Your task to perform on an android device: open app "Viber Messenger" (install if not already installed), go to login, and select forgot password Image 0: 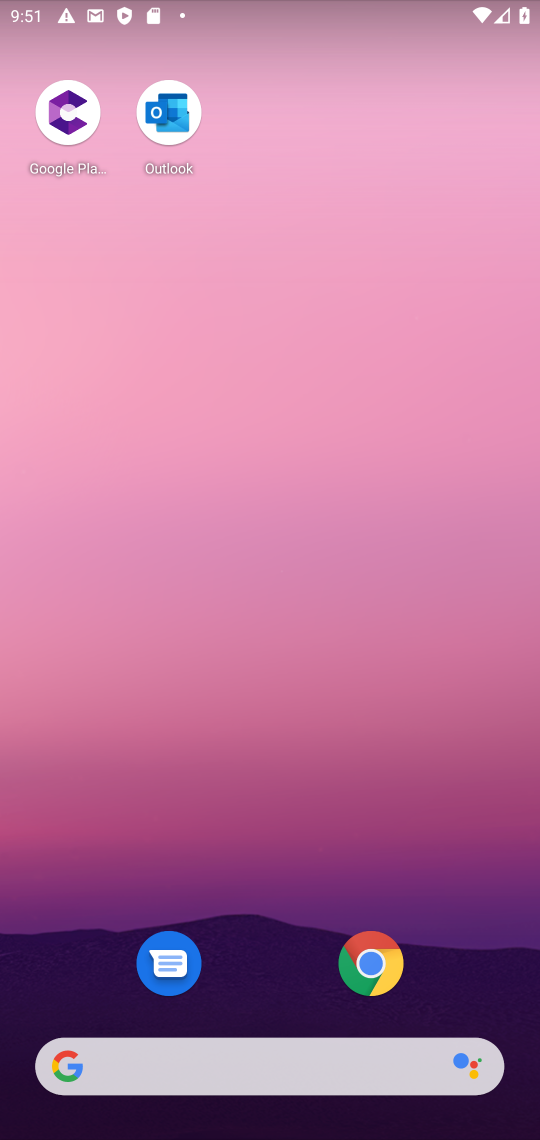
Step 0: drag from (252, 824) to (257, 141)
Your task to perform on an android device: open app "Viber Messenger" (install if not already installed), go to login, and select forgot password Image 1: 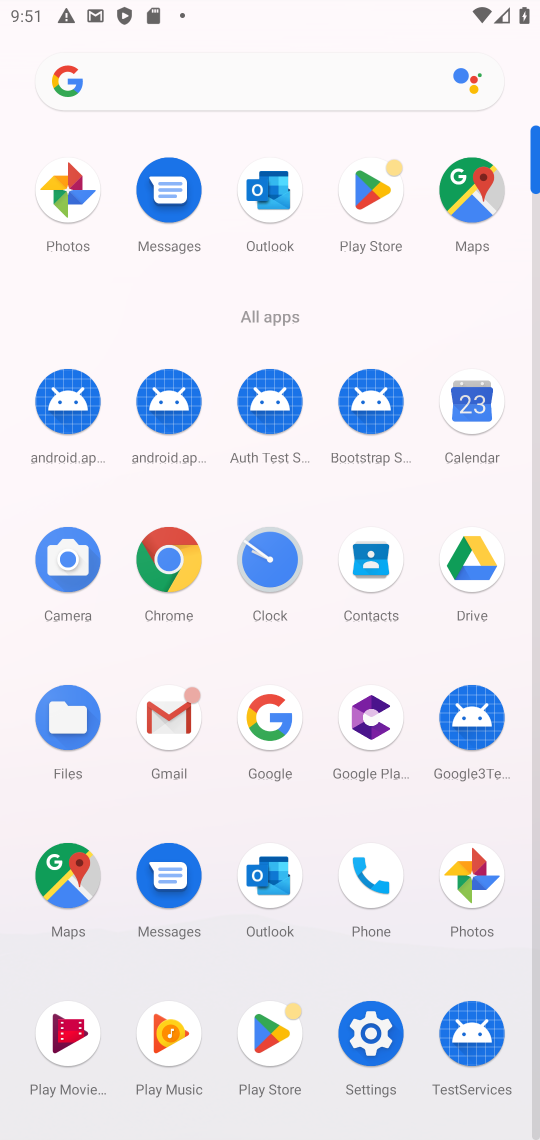
Step 1: click (247, 1038)
Your task to perform on an android device: open app "Viber Messenger" (install if not already installed), go to login, and select forgot password Image 2: 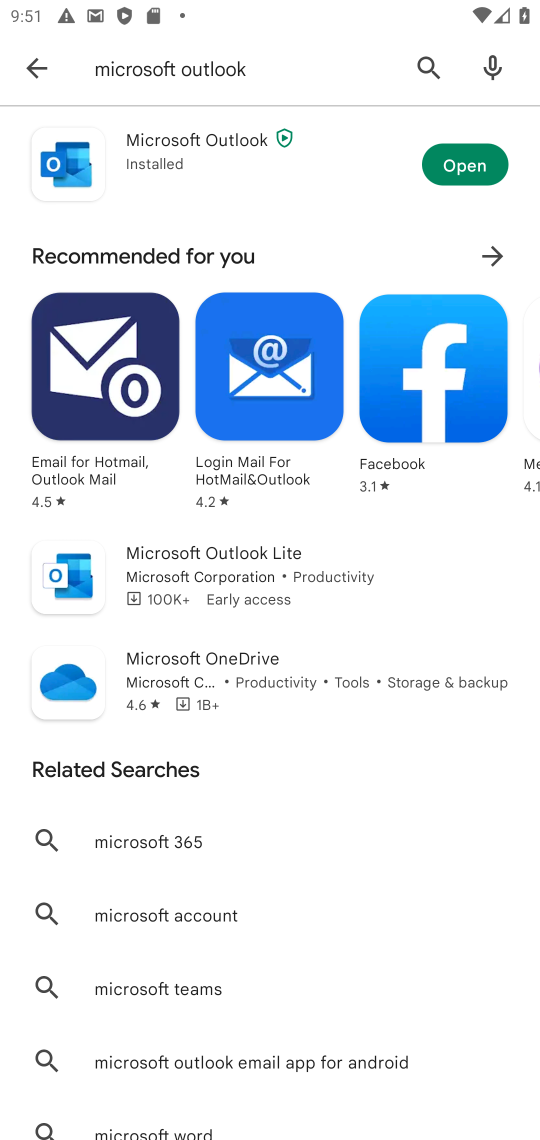
Step 2: click (426, 65)
Your task to perform on an android device: open app "Viber Messenger" (install if not already installed), go to login, and select forgot password Image 3: 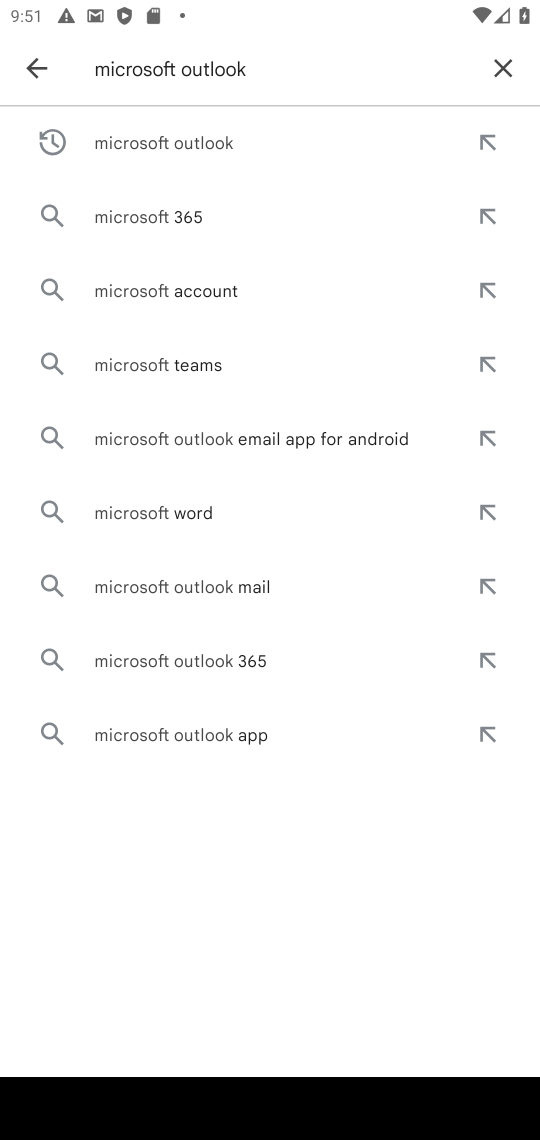
Step 3: click (502, 76)
Your task to perform on an android device: open app "Viber Messenger" (install if not already installed), go to login, and select forgot password Image 4: 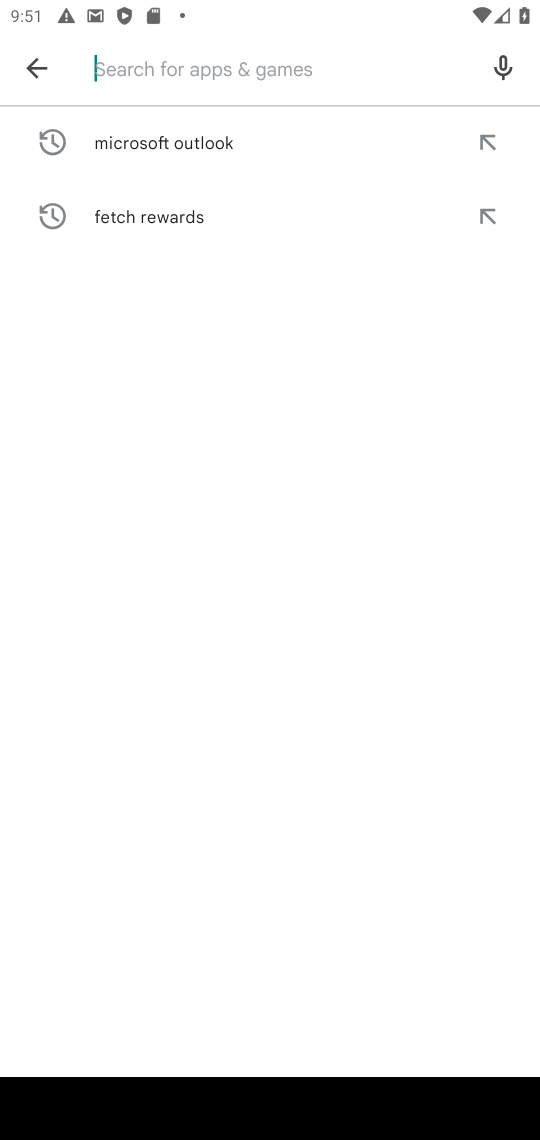
Step 4: type "Viber Messenger"
Your task to perform on an android device: open app "Viber Messenger" (install if not already installed), go to login, and select forgot password Image 5: 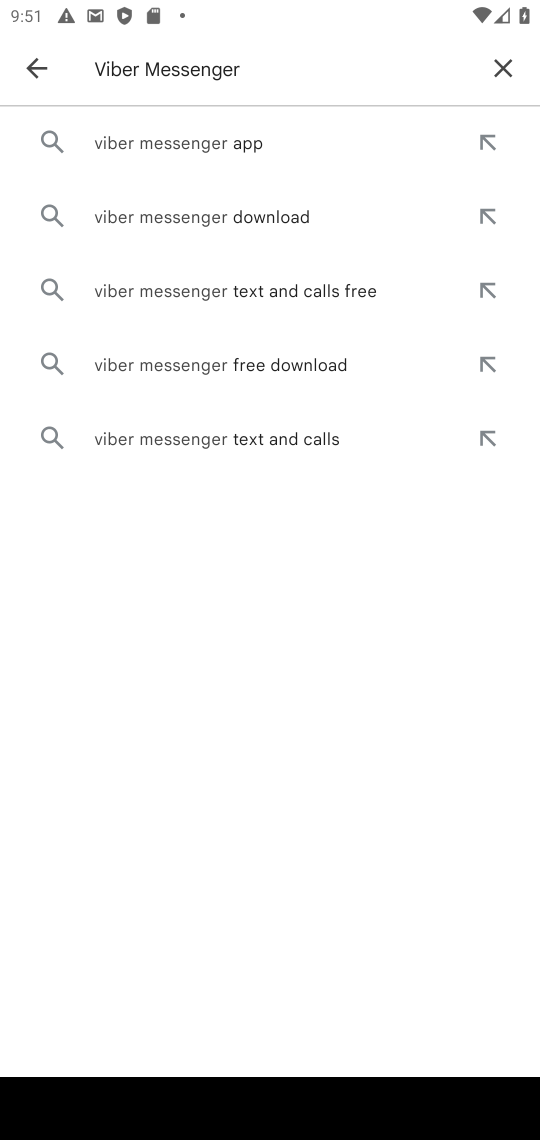
Step 5: click (199, 138)
Your task to perform on an android device: open app "Viber Messenger" (install if not already installed), go to login, and select forgot password Image 6: 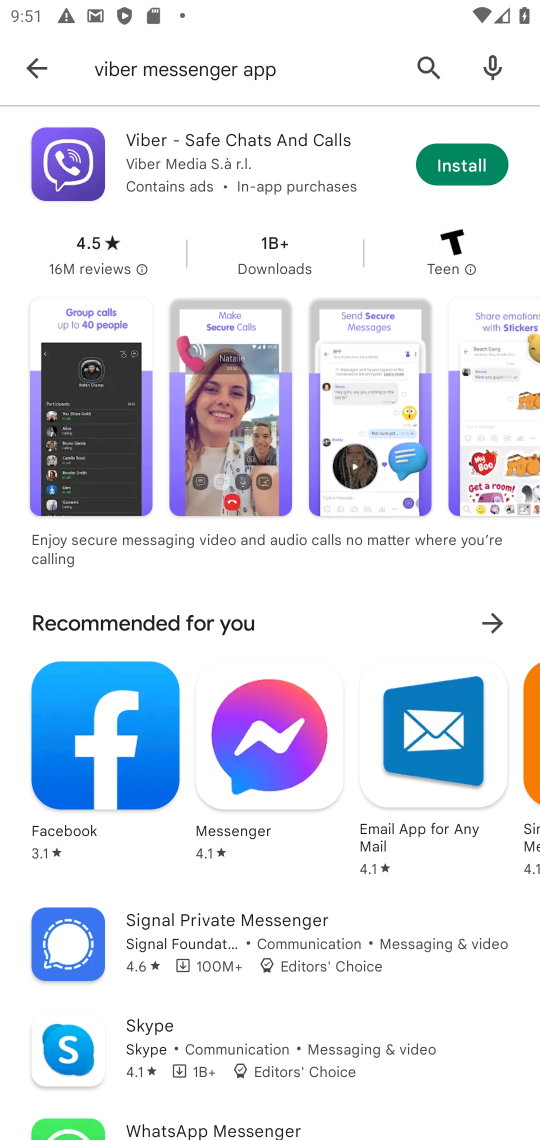
Step 6: click (461, 161)
Your task to perform on an android device: open app "Viber Messenger" (install if not already installed), go to login, and select forgot password Image 7: 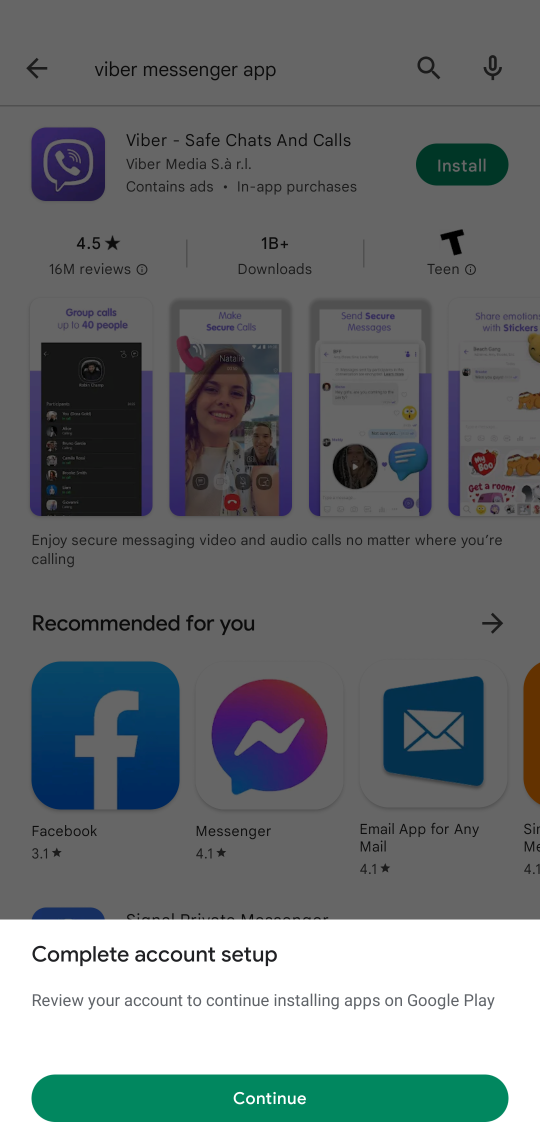
Step 7: click (272, 1090)
Your task to perform on an android device: open app "Viber Messenger" (install if not already installed), go to login, and select forgot password Image 8: 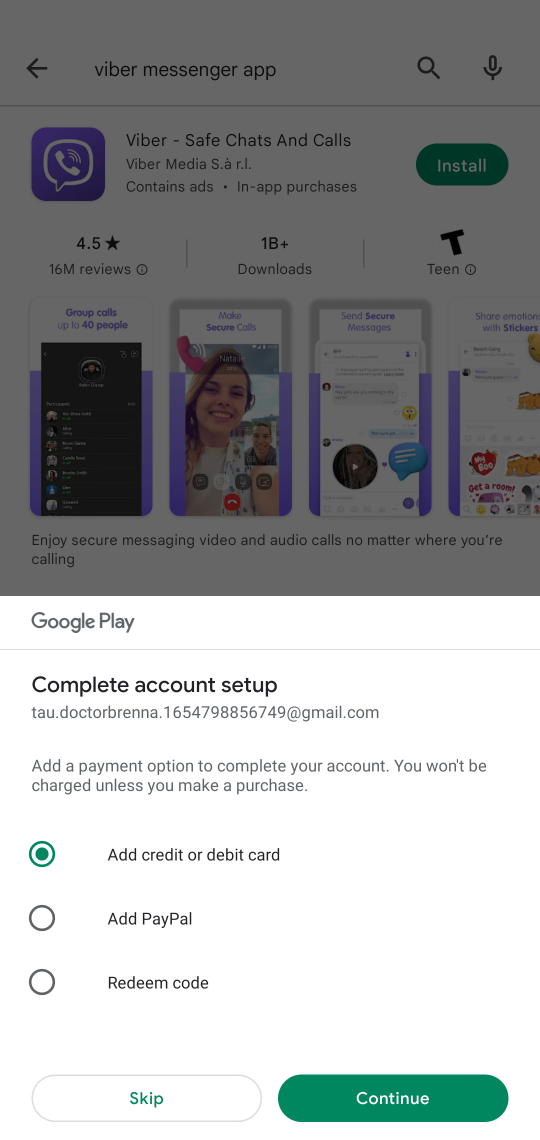
Step 8: click (101, 1094)
Your task to perform on an android device: open app "Viber Messenger" (install if not already installed), go to login, and select forgot password Image 9: 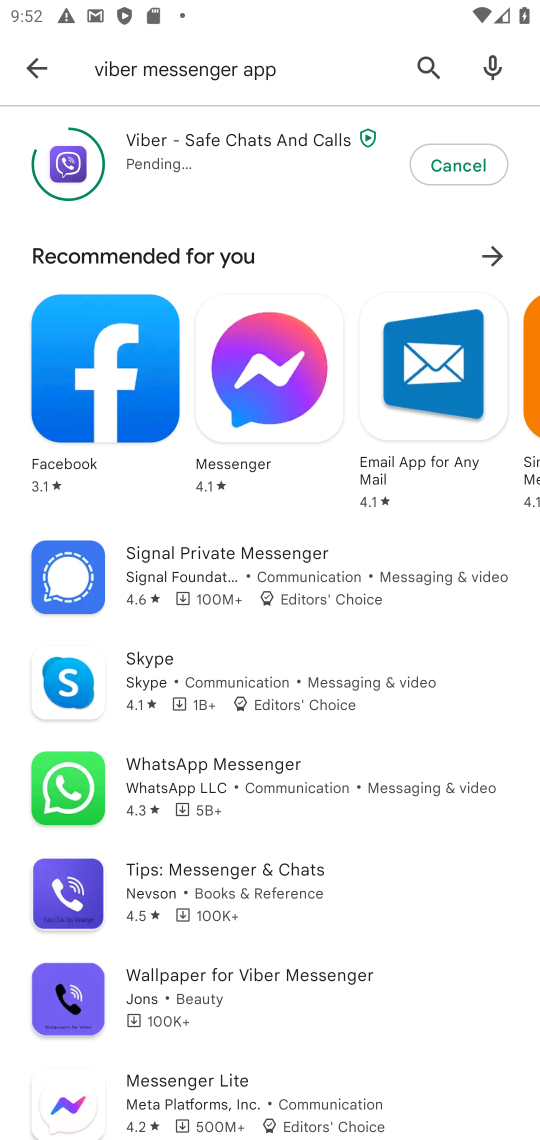
Step 9: click (457, 151)
Your task to perform on an android device: open app "Viber Messenger" (install if not already installed), go to login, and select forgot password Image 10: 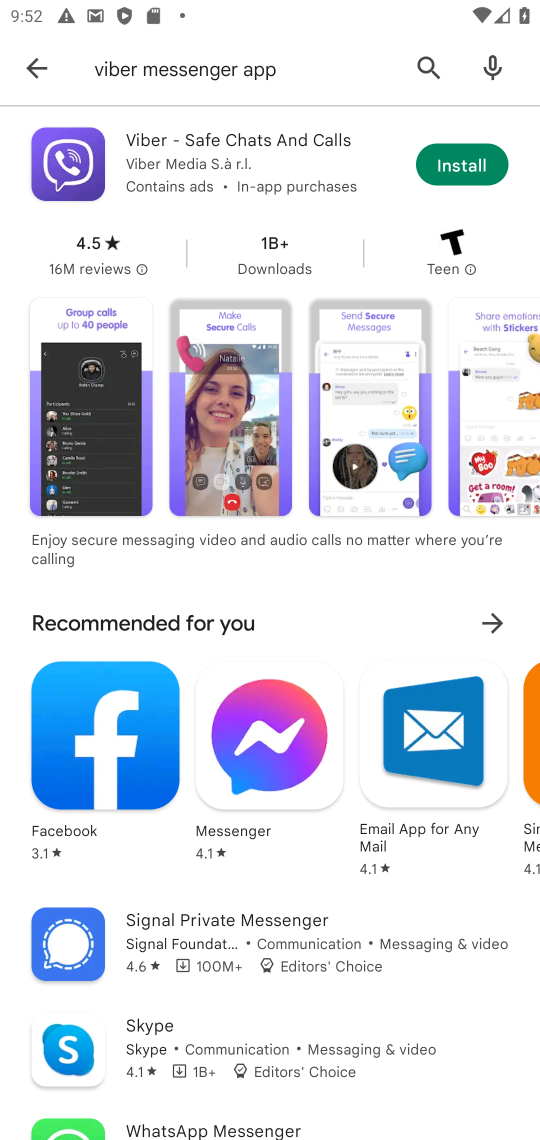
Step 10: click (435, 167)
Your task to perform on an android device: open app "Viber Messenger" (install if not already installed), go to login, and select forgot password Image 11: 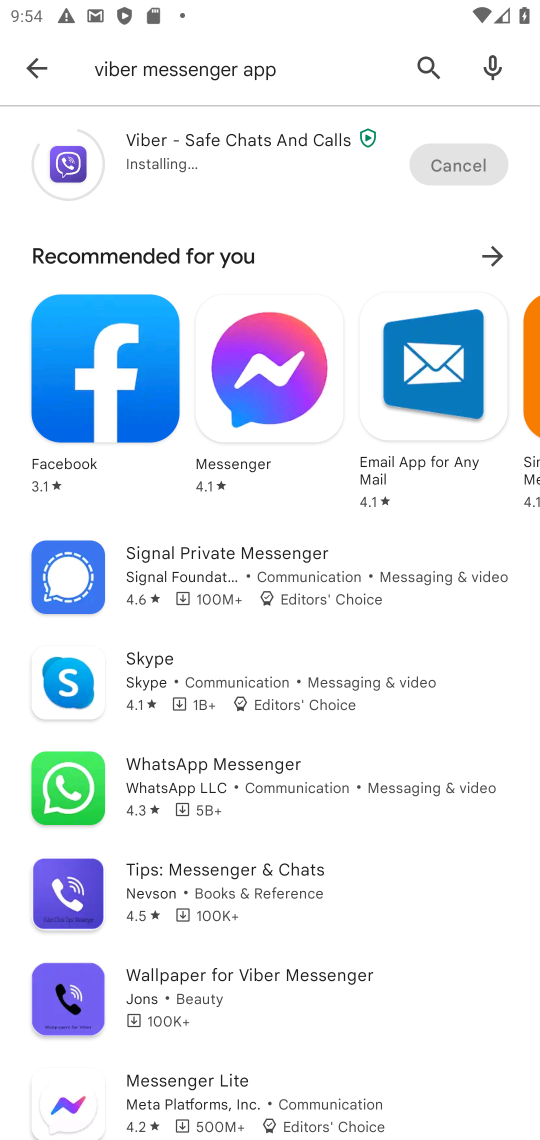
Step 11: task complete